Your task to perform on an android device: allow cookies in the chrome app Image 0: 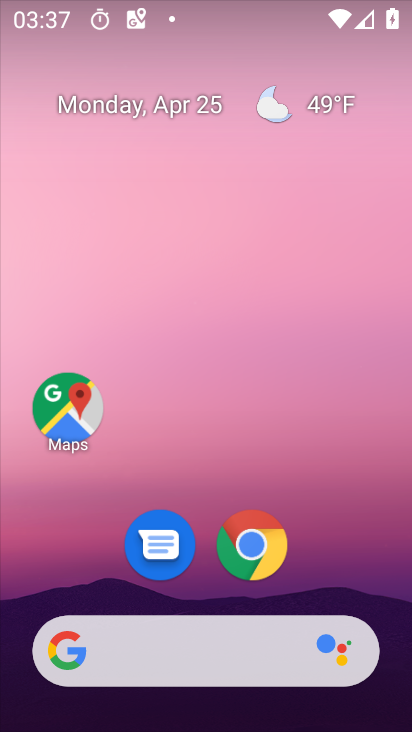
Step 0: click (251, 545)
Your task to perform on an android device: allow cookies in the chrome app Image 1: 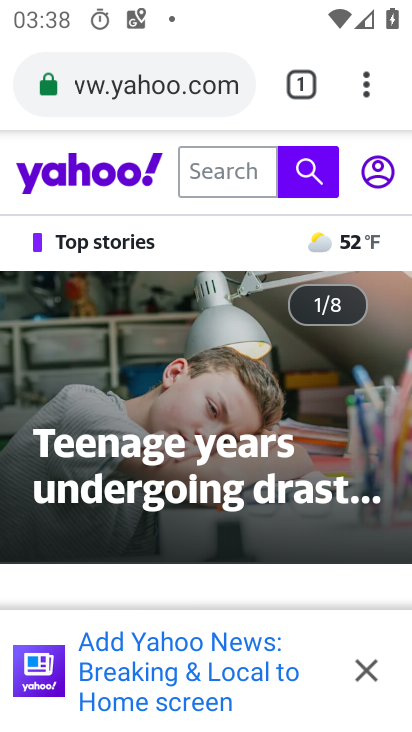
Step 1: click (367, 90)
Your task to perform on an android device: allow cookies in the chrome app Image 2: 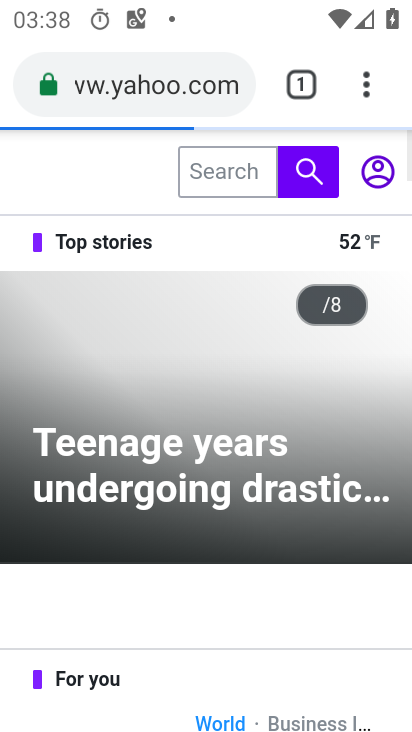
Step 2: click (367, 91)
Your task to perform on an android device: allow cookies in the chrome app Image 3: 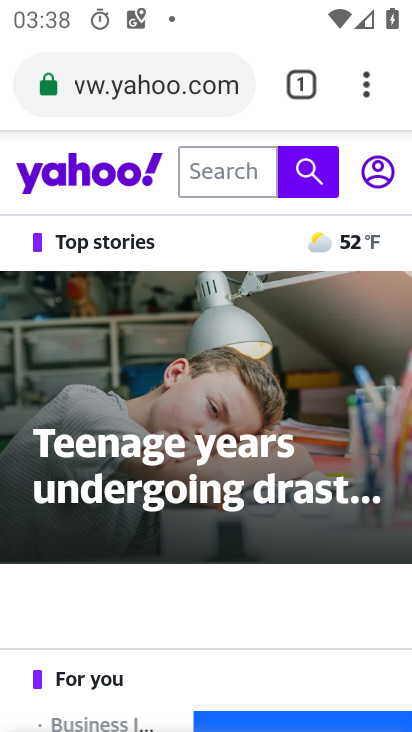
Step 3: click (367, 91)
Your task to perform on an android device: allow cookies in the chrome app Image 4: 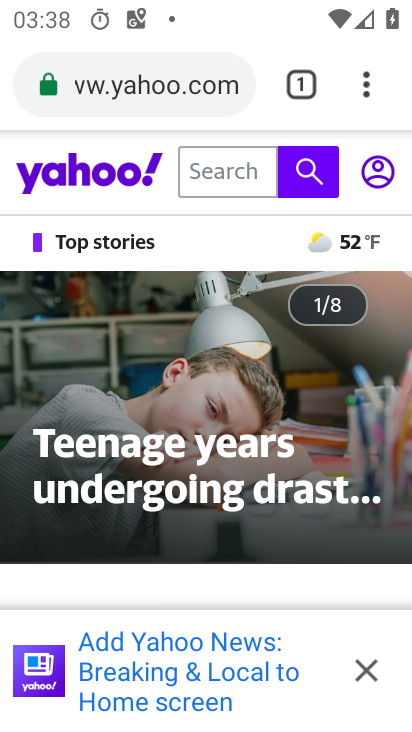
Step 4: click (367, 91)
Your task to perform on an android device: allow cookies in the chrome app Image 5: 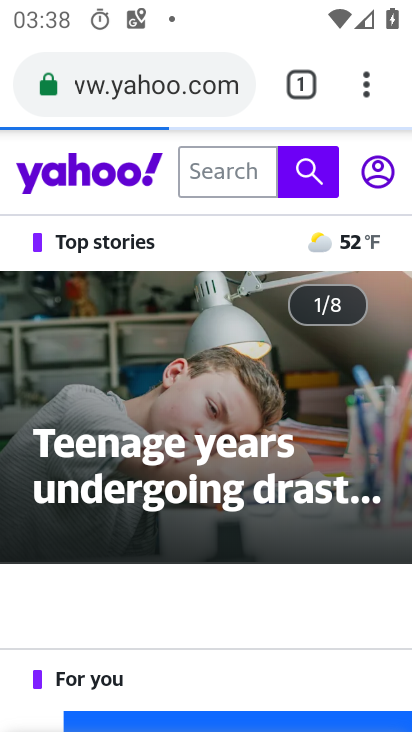
Step 5: click (367, 91)
Your task to perform on an android device: allow cookies in the chrome app Image 6: 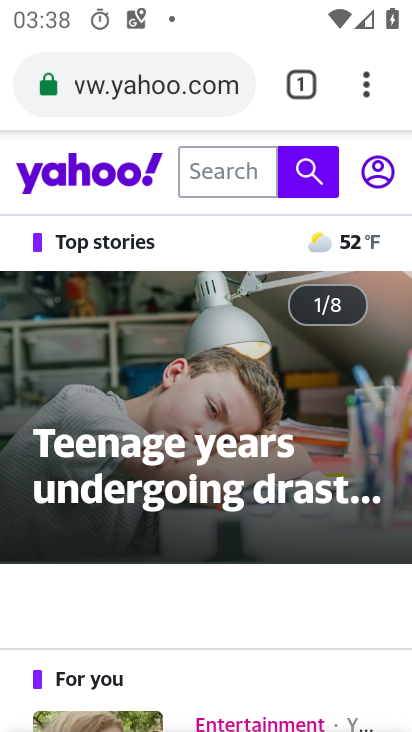
Step 6: click (367, 91)
Your task to perform on an android device: allow cookies in the chrome app Image 7: 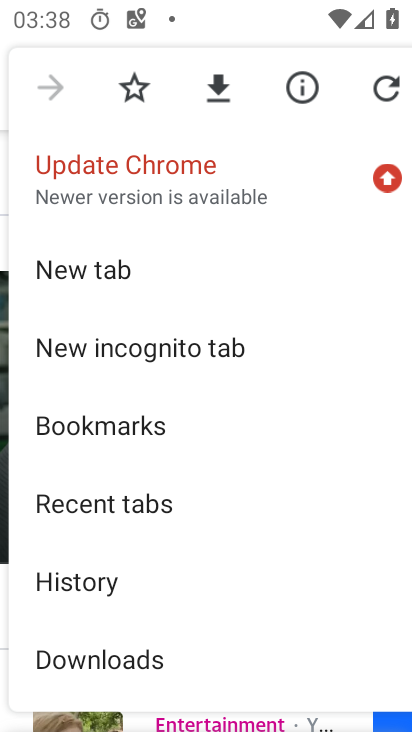
Step 7: drag from (118, 555) to (137, 244)
Your task to perform on an android device: allow cookies in the chrome app Image 8: 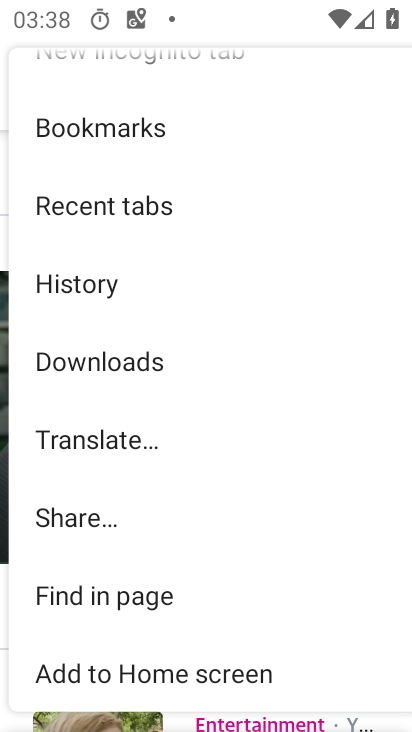
Step 8: drag from (92, 525) to (137, 222)
Your task to perform on an android device: allow cookies in the chrome app Image 9: 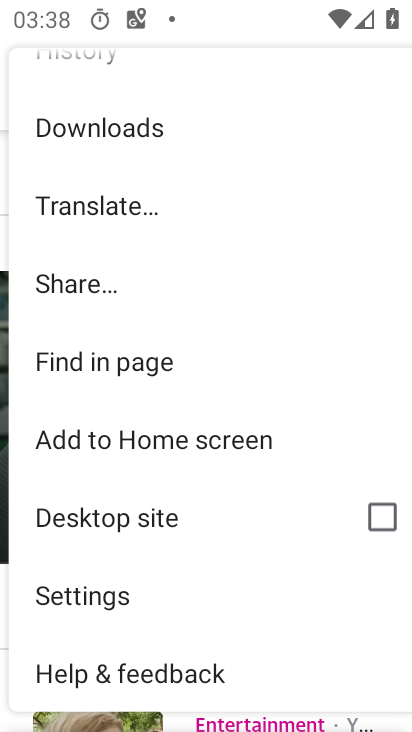
Step 9: click (91, 590)
Your task to perform on an android device: allow cookies in the chrome app Image 10: 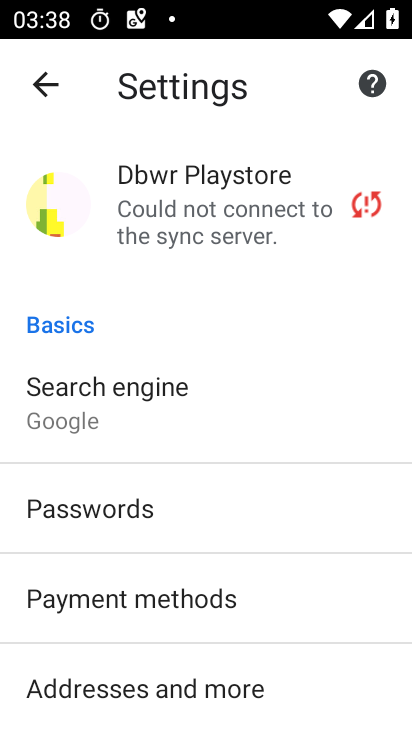
Step 10: drag from (128, 637) to (185, 325)
Your task to perform on an android device: allow cookies in the chrome app Image 11: 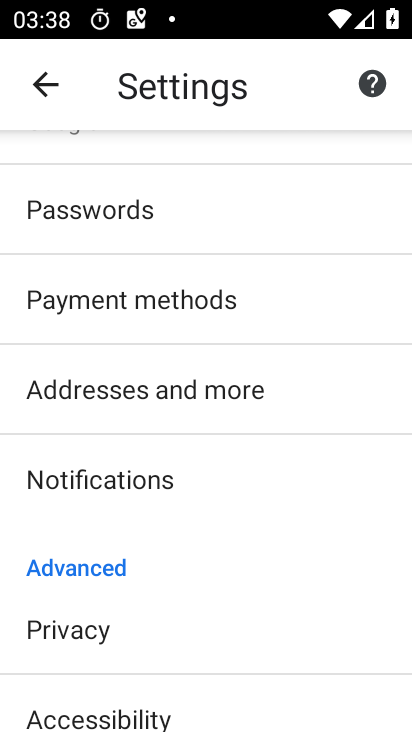
Step 11: drag from (112, 527) to (194, 194)
Your task to perform on an android device: allow cookies in the chrome app Image 12: 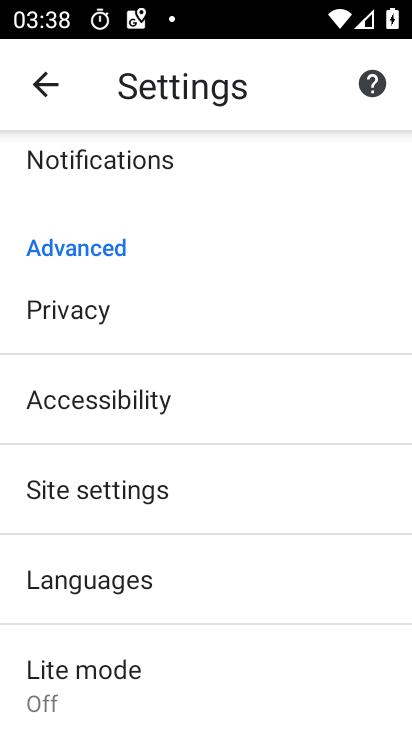
Step 12: click (101, 482)
Your task to perform on an android device: allow cookies in the chrome app Image 13: 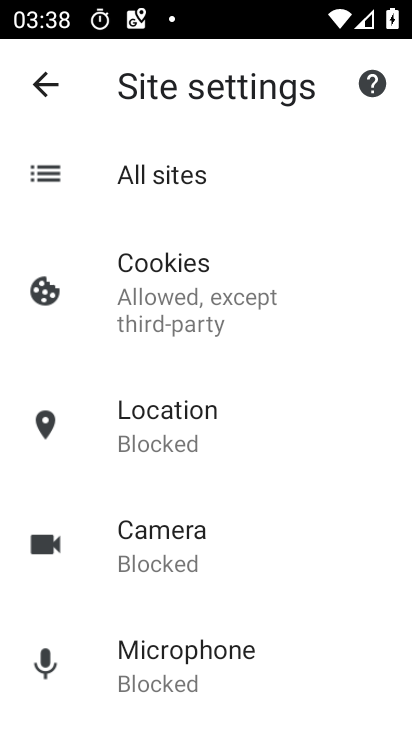
Step 13: click (176, 306)
Your task to perform on an android device: allow cookies in the chrome app Image 14: 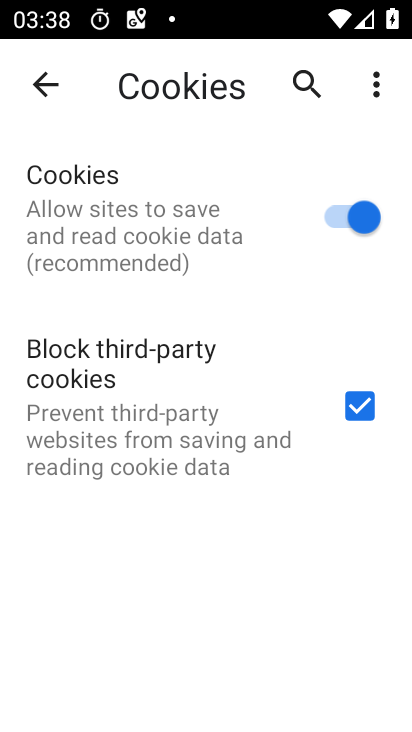
Step 14: task complete